Your task to perform on an android device: Open notification settings Image 0: 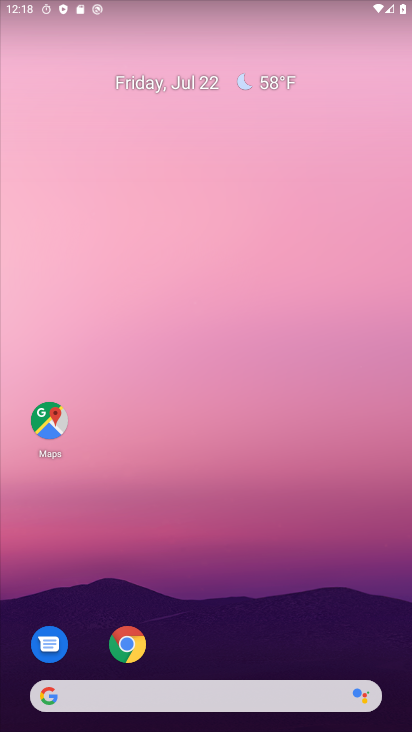
Step 0: drag from (209, 547) to (283, 175)
Your task to perform on an android device: Open notification settings Image 1: 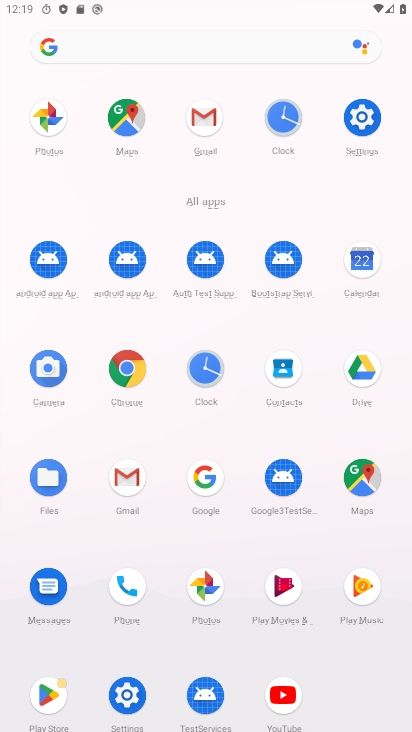
Step 1: click (358, 118)
Your task to perform on an android device: Open notification settings Image 2: 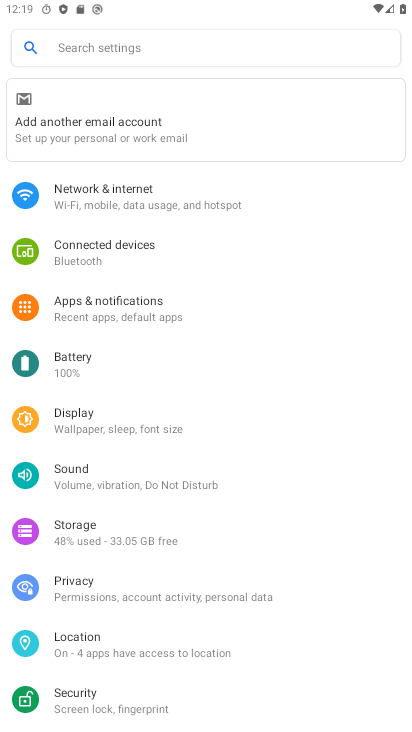
Step 2: click (122, 310)
Your task to perform on an android device: Open notification settings Image 3: 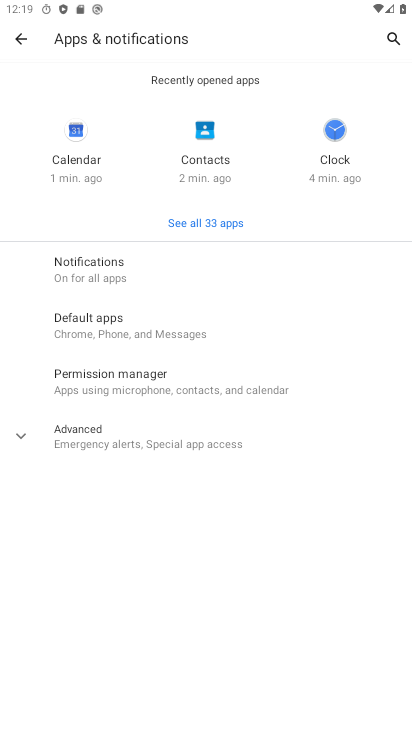
Step 3: click (158, 258)
Your task to perform on an android device: Open notification settings Image 4: 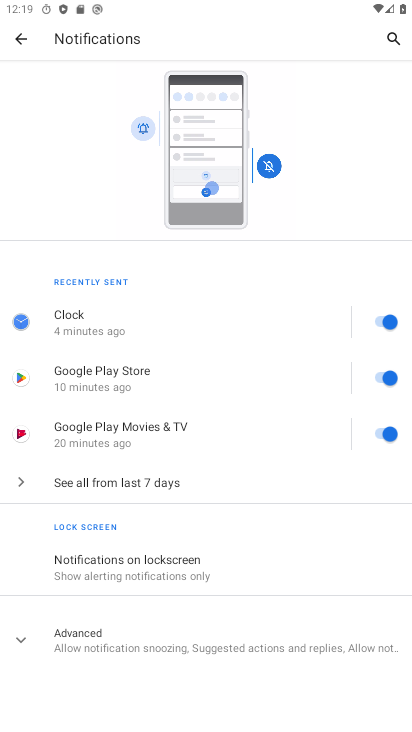
Step 4: drag from (249, 506) to (320, 292)
Your task to perform on an android device: Open notification settings Image 5: 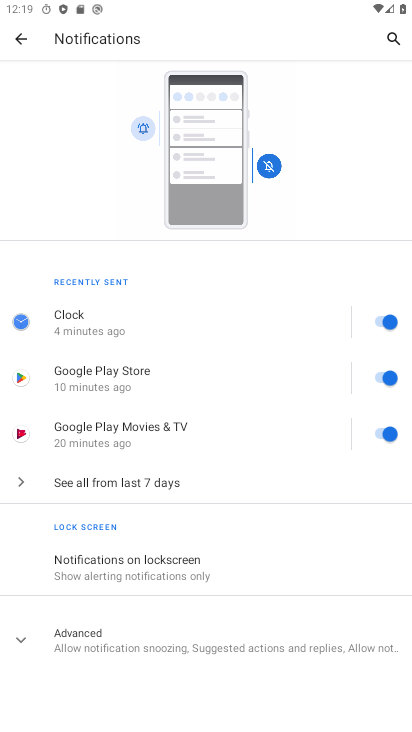
Step 5: click (75, 652)
Your task to perform on an android device: Open notification settings Image 6: 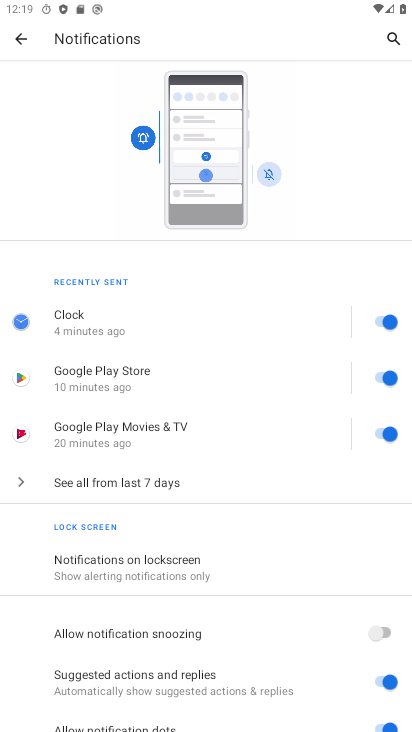
Step 6: task complete